Your task to perform on an android device: turn off wifi Image 0: 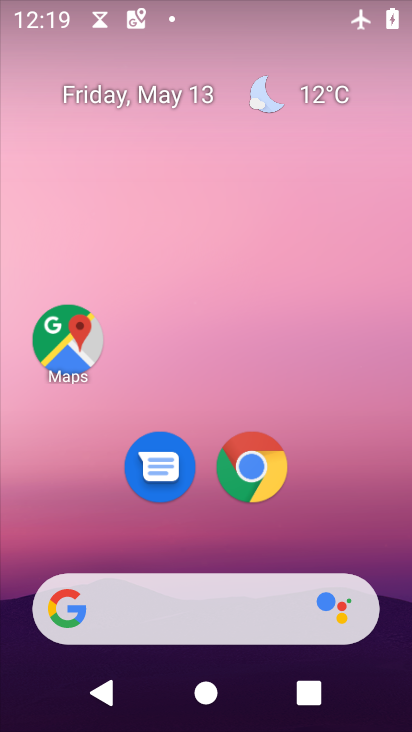
Step 0: drag from (309, 509) to (286, 7)
Your task to perform on an android device: turn off wifi Image 1: 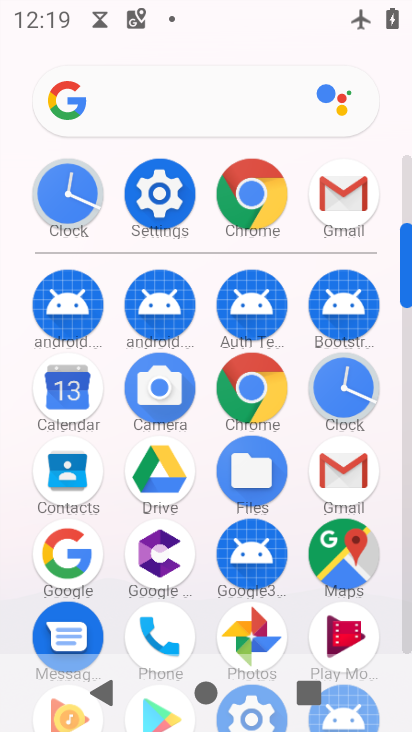
Step 1: click (185, 190)
Your task to perform on an android device: turn off wifi Image 2: 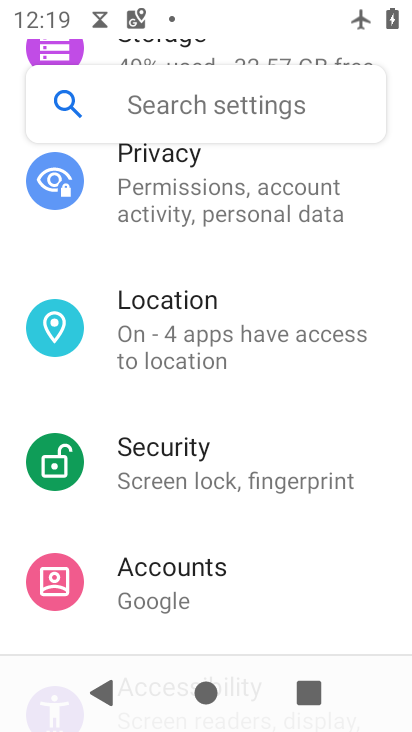
Step 2: drag from (274, 222) to (251, 676)
Your task to perform on an android device: turn off wifi Image 3: 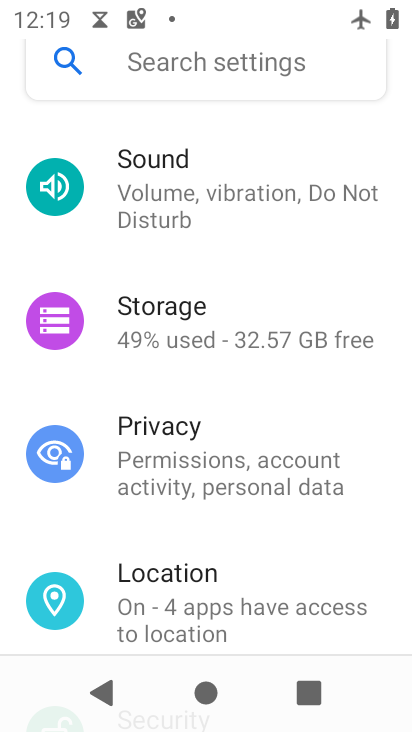
Step 3: drag from (243, 236) to (187, 674)
Your task to perform on an android device: turn off wifi Image 4: 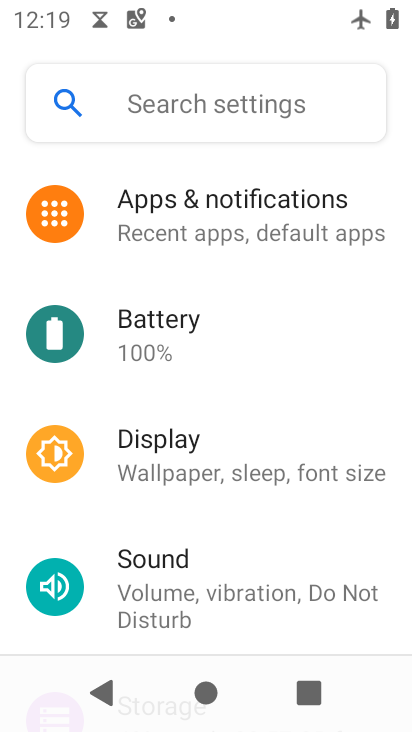
Step 4: drag from (251, 235) to (250, 492)
Your task to perform on an android device: turn off wifi Image 5: 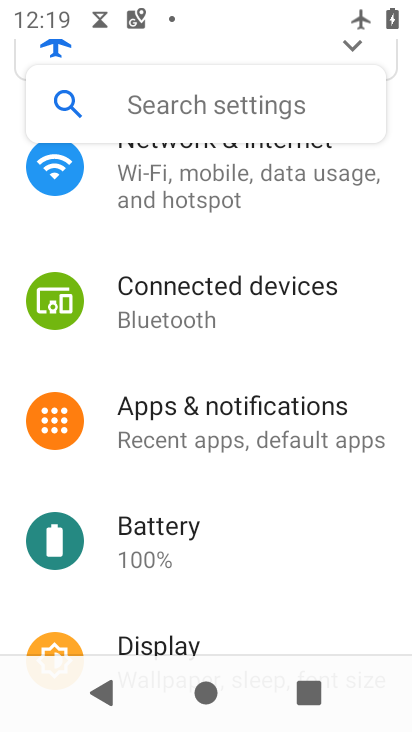
Step 5: click (229, 177)
Your task to perform on an android device: turn off wifi Image 6: 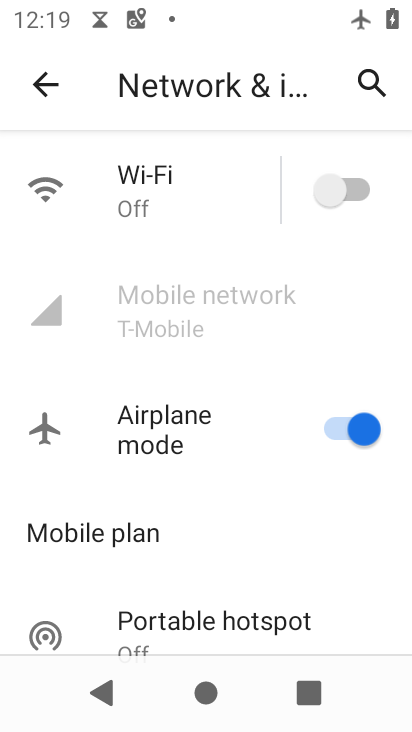
Step 6: click (160, 191)
Your task to perform on an android device: turn off wifi Image 7: 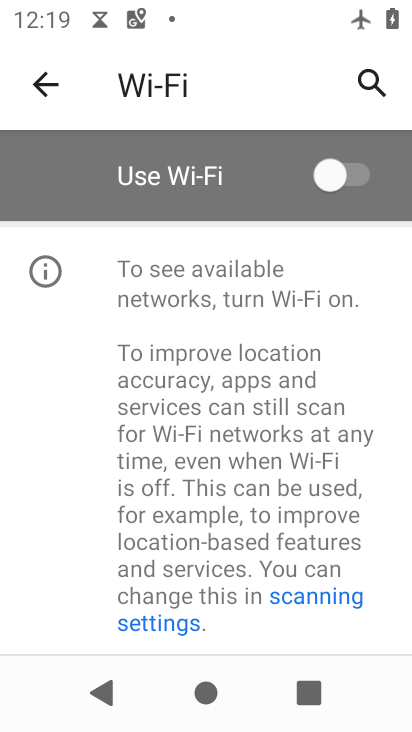
Step 7: task complete